Your task to perform on an android device: set the stopwatch Image 0: 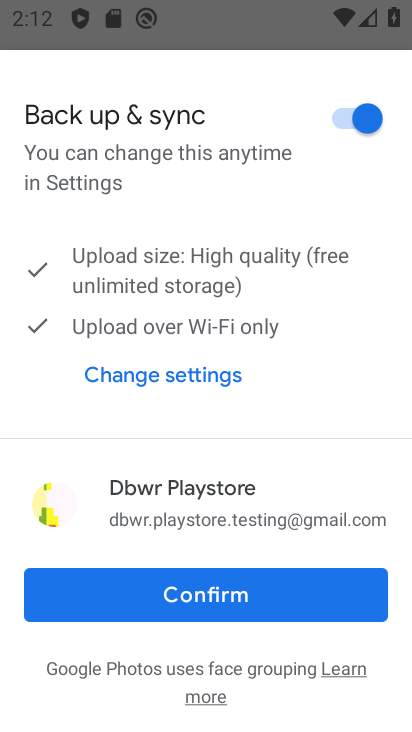
Step 0: press home button
Your task to perform on an android device: set the stopwatch Image 1: 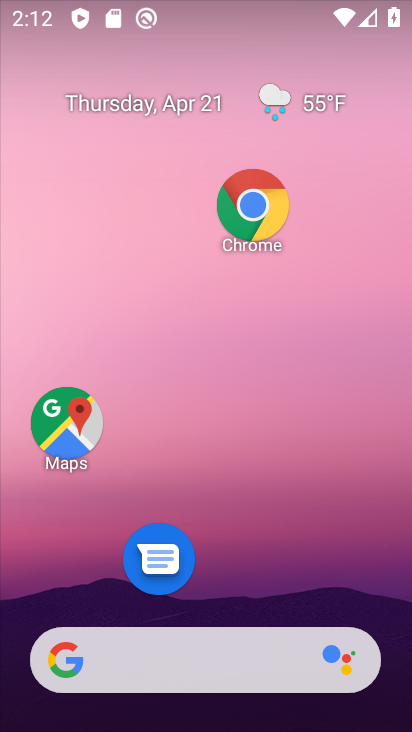
Step 1: drag from (206, 599) to (294, 20)
Your task to perform on an android device: set the stopwatch Image 2: 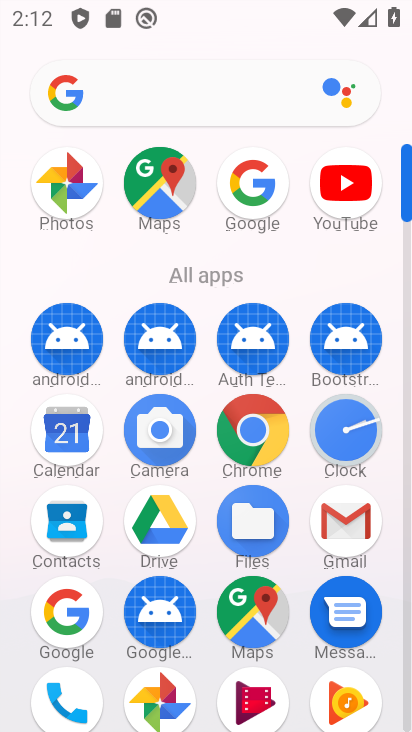
Step 2: click (353, 422)
Your task to perform on an android device: set the stopwatch Image 3: 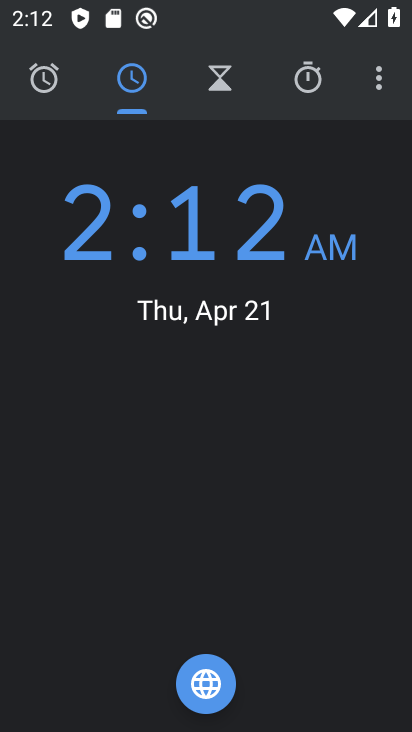
Step 3: click (322, 80)
Your task to perform on an android device: set the stopwatch Image 4: 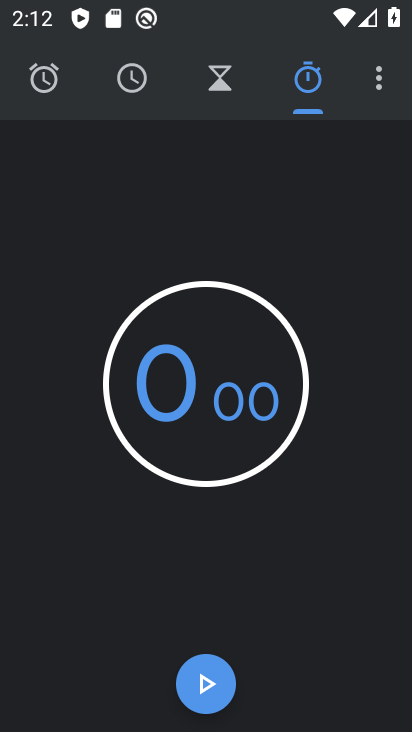
Step 4: click (220, 91)
Your task to perform on an android device: set the stopwatch Image 5: 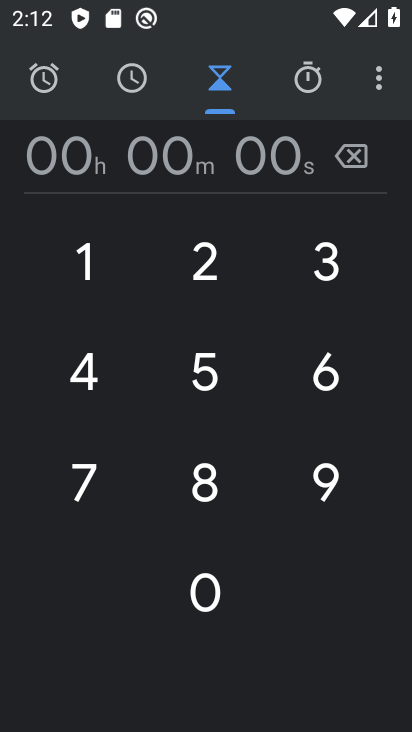
Step 5: click (310, 88)
Your task to perform on an android device: set the stopwatch Image 6: 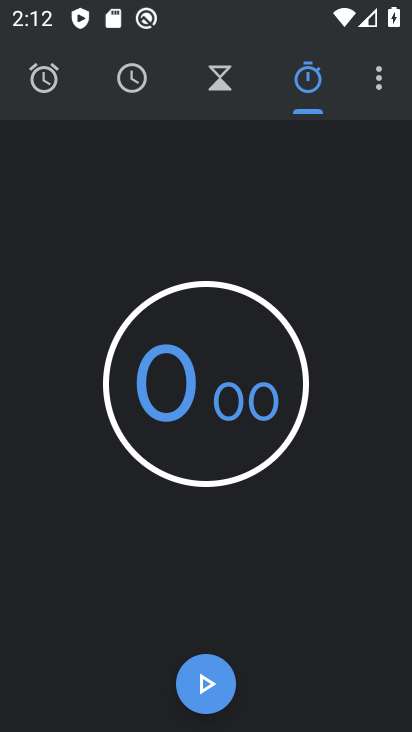
Step 6: click (206, 685)
Your task to perform on an android device: set the stopwatch Image 7: 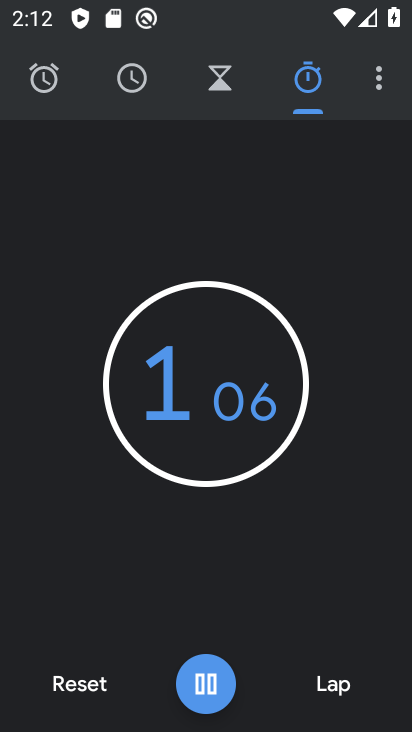
Step 7: click (220, 695)
Your task to perform on an android device: set the stopwatch Image 8: 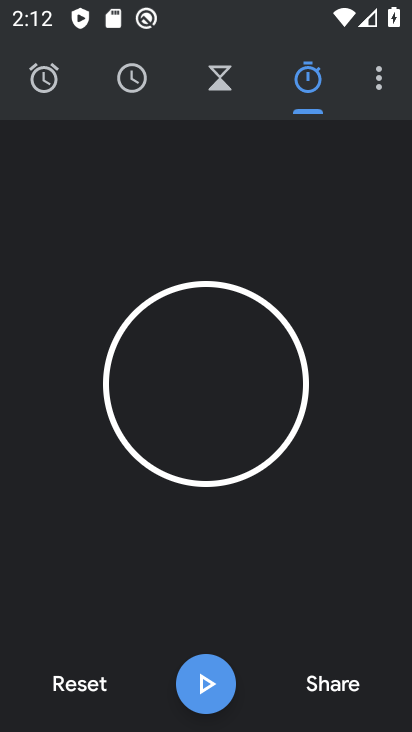
Step 8: task complete